Your task to perform on an android device: Open maps Image 0: 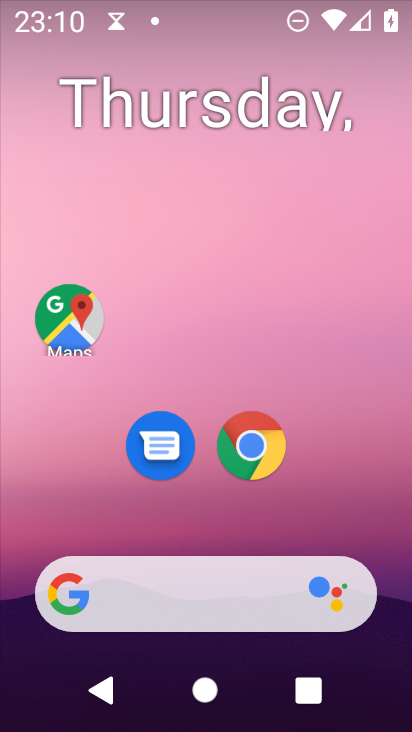
Step 0: drag from (234, 723) to (234, 58)
Your task to perform on an android device: Open maps Image 1: 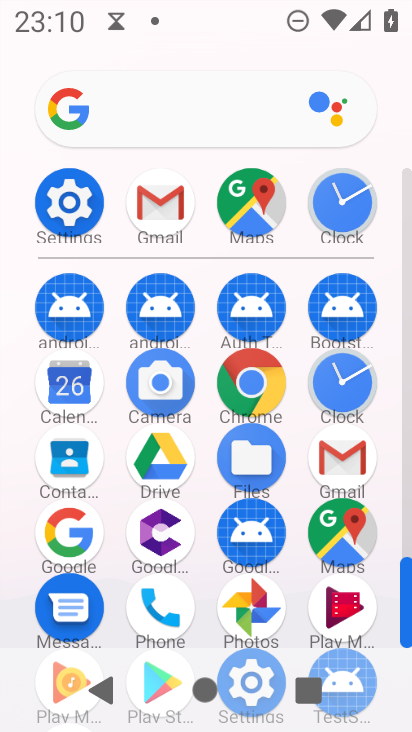
Step 1: click (343, 535)
Your task to perform on an android device: Open maps Image 2: 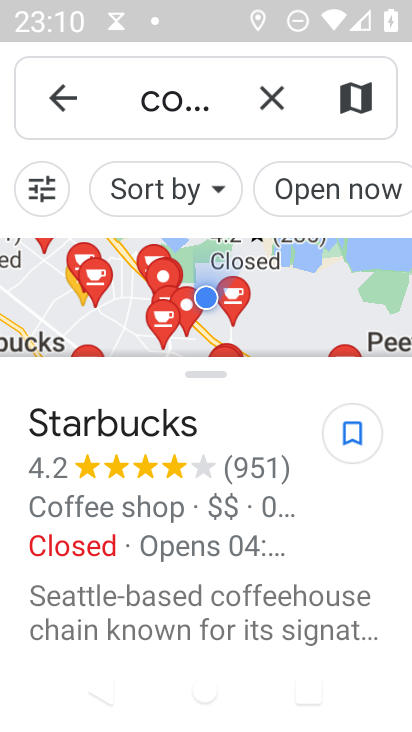
Step 2: task complete